Your task to perform on an android device: When is my next appointment? Image 0: 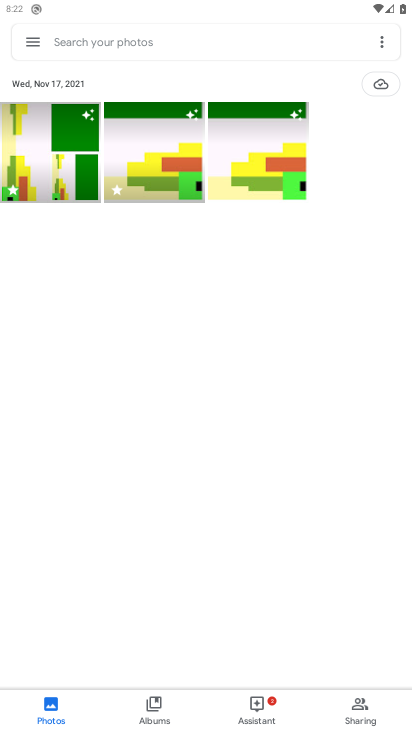
Step 0: press home button
Your task to perform on an android device: When is my next appointment? Image 1: 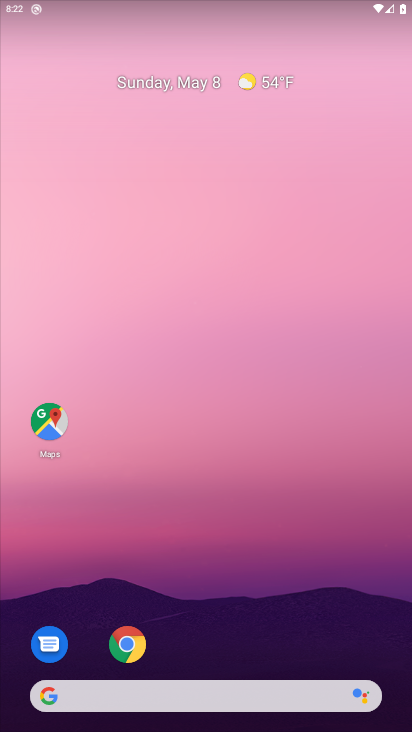
Step 1: drag from (147, 596) to (215, 258)
Your task to perform on an android device: When is my next appointment? Image 2: 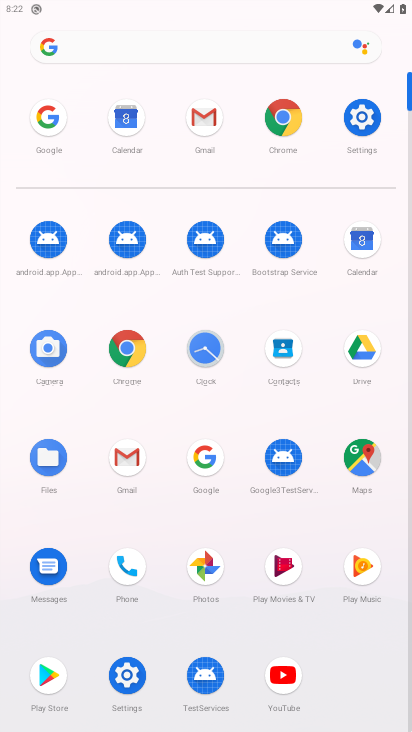
Step 2: click (357, 246)
Your task to perform on an android device: When is my next appointment? Image 3: 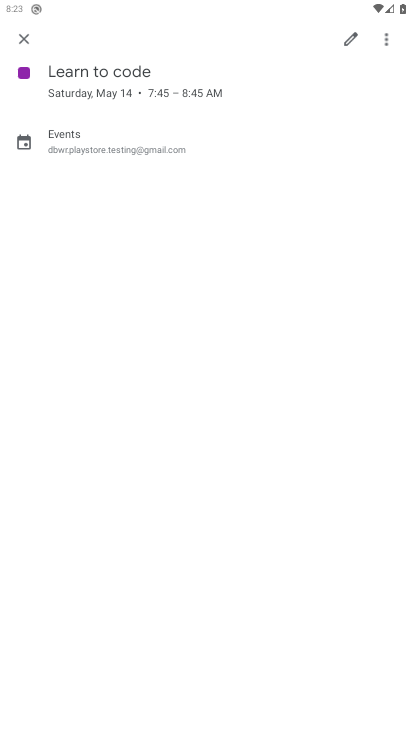
Step 3: click (28, 42)
Your task to perform on an android device: When is my next appointment? Image 4: 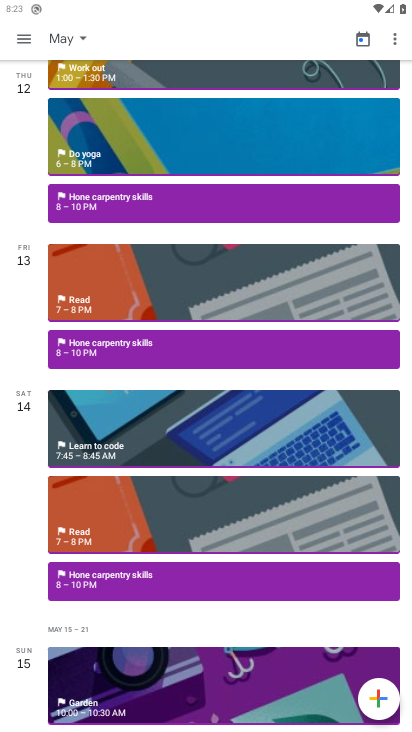
Step 4: drag from (204, 113) to (177, 572)
Your task to perform on an android device: When is my next appointment? Image 5: 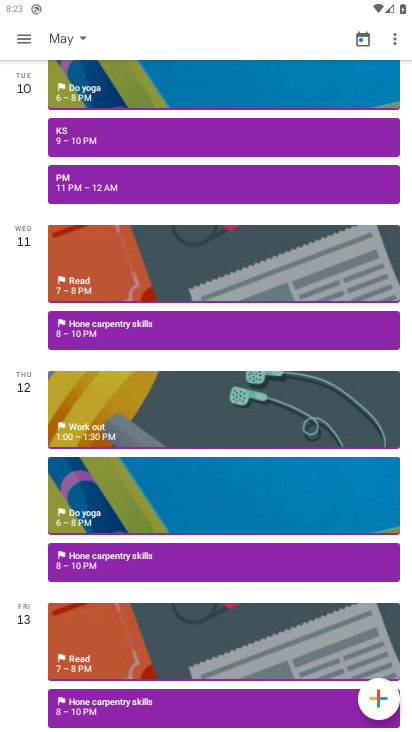
Step 5: click (235, 84)
Your task to perform on an android device: When is my next appointment? Image 6: 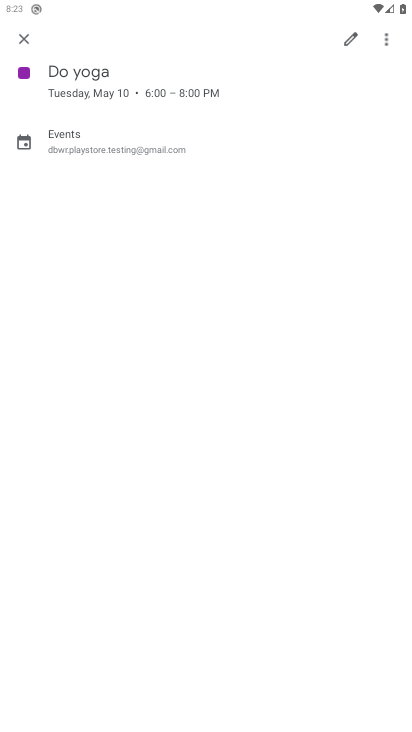
Step 6: task complete